Your task to perform on an android device: Open accessibility settings Image 0: 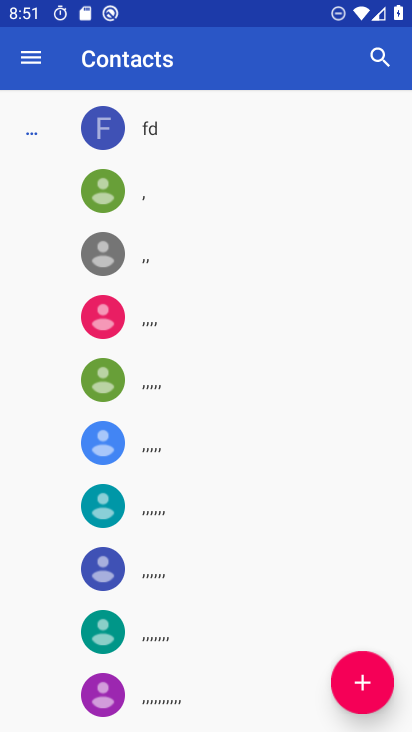
Step 0: press home button
Your task to perform on an android device: Open accessibility settings Image 1: 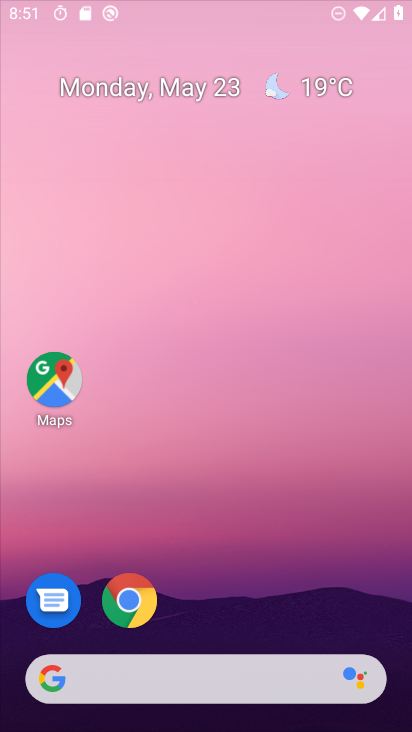
Step 1: drag from (7, 684) to (295, 96)
Your task to perform on an android device: Open accessibility settings Image 2: 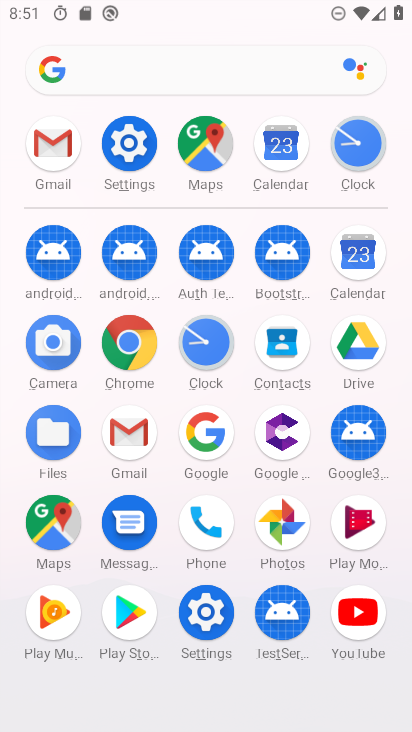
Step 2: click (105, 157)
Your task to perform on an android device: Open accessibility settings Image 3: 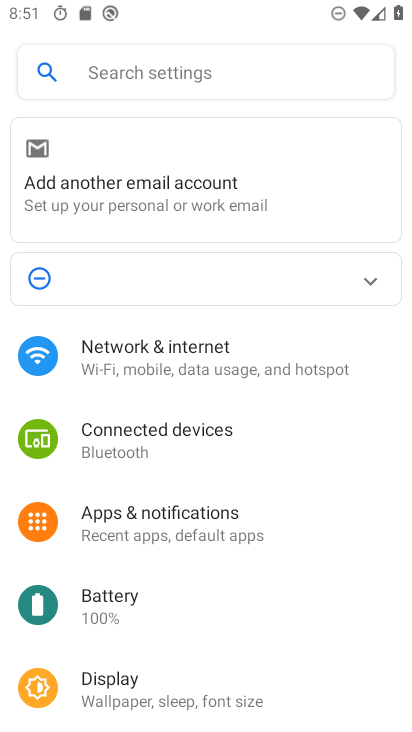
Step 3: drag from (11, 458) to (123, 224)
Your task to perform on an android device: Open accessibility settings Image 4: 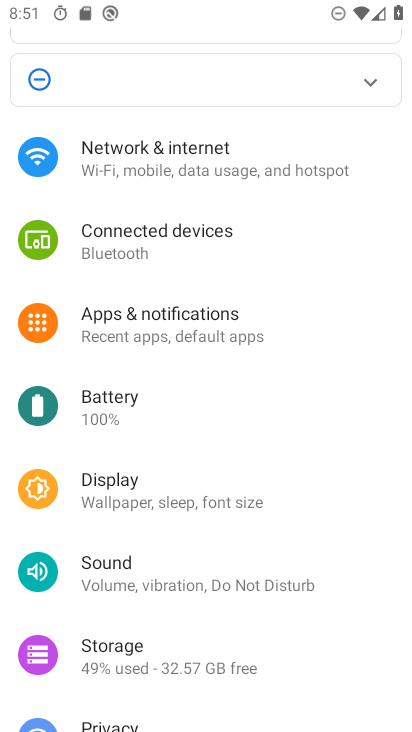
Step 4: drag from (53, 475) to (214, 215)
Your task to perform on an android device: Open accessibility settings Image 5: 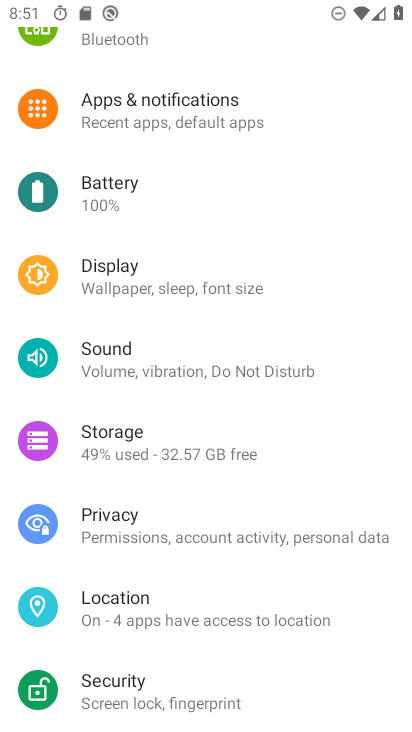
Step 5: drag from (99, 684) to (283, 181)
Your task to perform on an android device: Open accessibility settings Image 6: 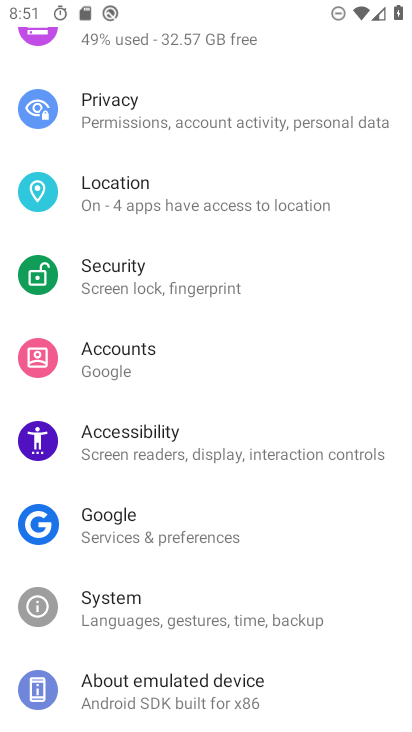
Step 6: click (165, 440)
Your task to perform on an android device: Open accessibility settings Image 7: 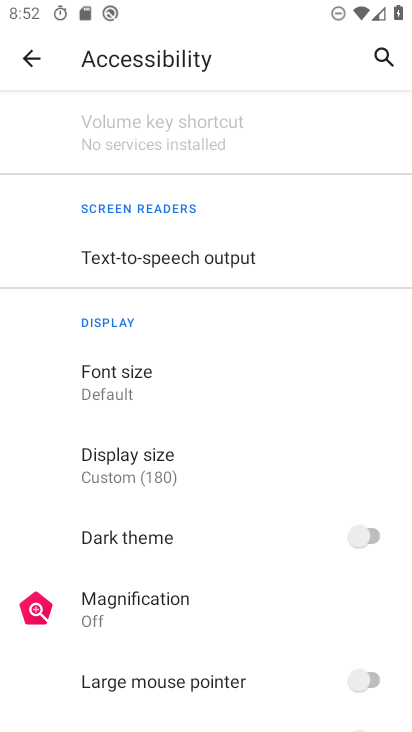
Step 7: task complete